Your task to perform on an android device: find which apps use the phone's location Image 0: 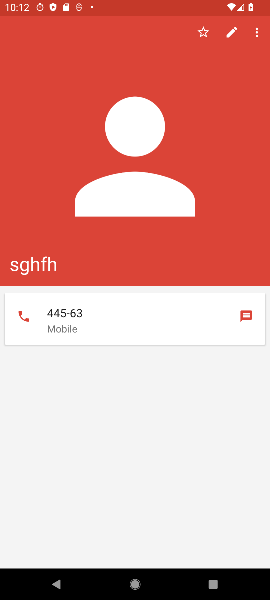
Step 0: press home button
Your task to perform on an android device: find which apps use the phone's location Image 1: 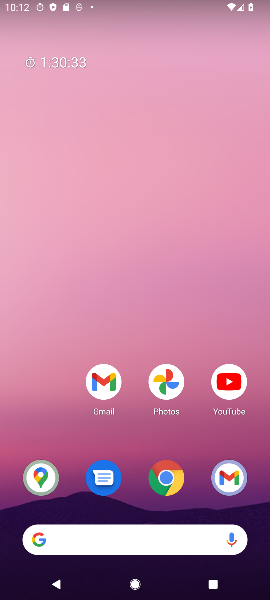
Step 1: drag from (128, 439) to (212, 33)
Your task to perform on an android device: find which apps use the phone's location Image 2: 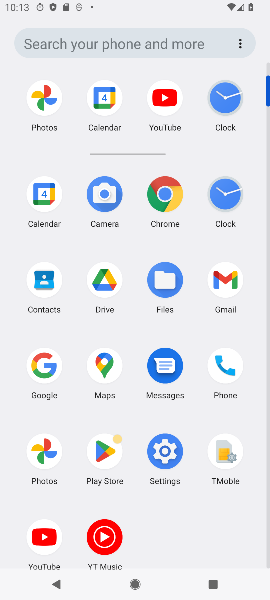
Step 2: click (223, 362)
Your task to perform on an android device: find which apps use the phone's location Image 3: 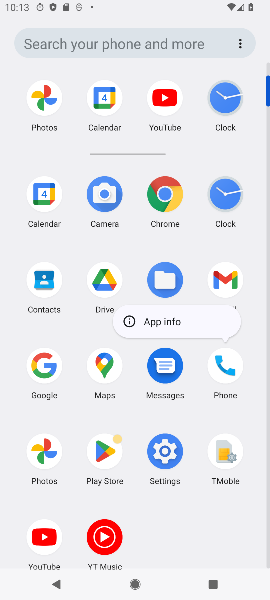
Step 3: click (195, 320)
Your task to perform on an android device: find which apps use the phone's location Image 4: 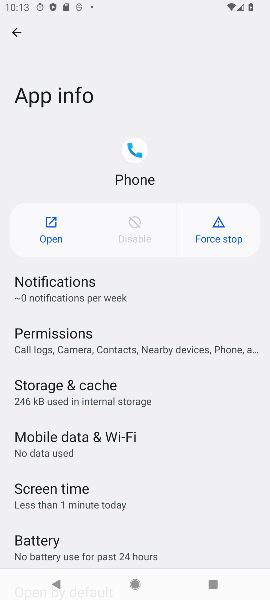
Step 4: task complete